Your task to perform on an android device: Open the phone app and click the voicemail tab. Image 0: 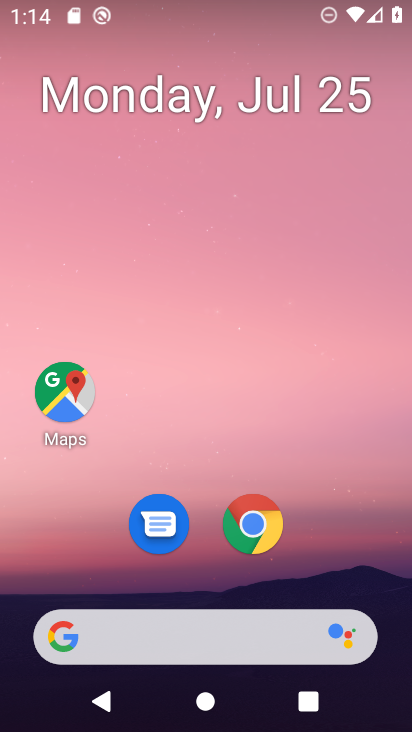
Step 0: press home button
Your task to perform on an android device: Open the phone app and click the voicemail tab. Image 1: 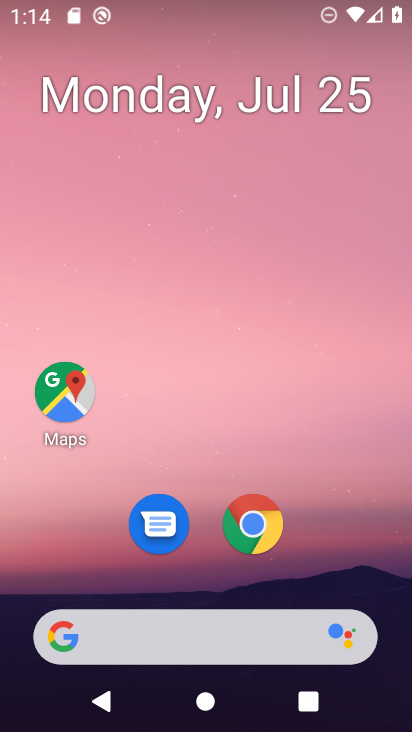
Step 1: drag from (206, 653) to (345, 141)
Your task to perform on an android device: Open the phone app and click the voicemail tab. Image 2: 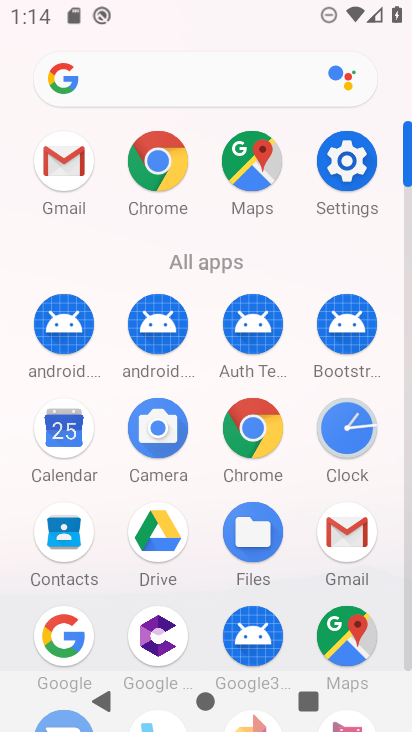
Step 2: drag from (208, 606) to (344, 124)
Your task to perform on an android device: Open the phone app and click the voicemail tab. Image 3: 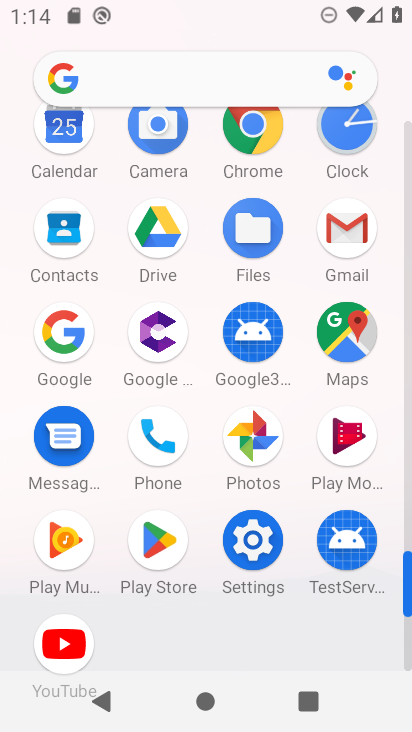
Step 3: click (147, 449)
Your task to perform on an android device: Open the phone app and click the voicemail tab. Image 4: 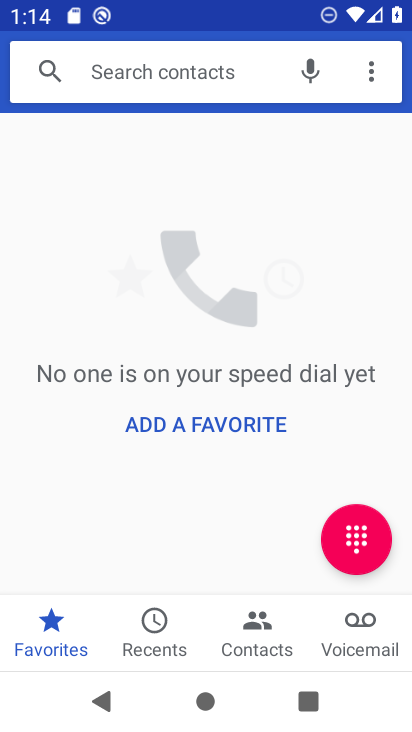
Step 4: click (349, 615)
Your task to perform on an android device: Open the phone app and click the voicemail tab. Image 5: 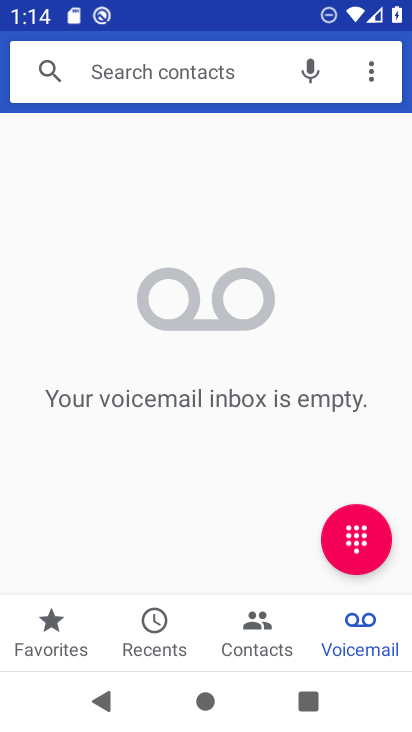
Step 5: task complete